Your task to perform on an android device: Go to network settings Image 0: 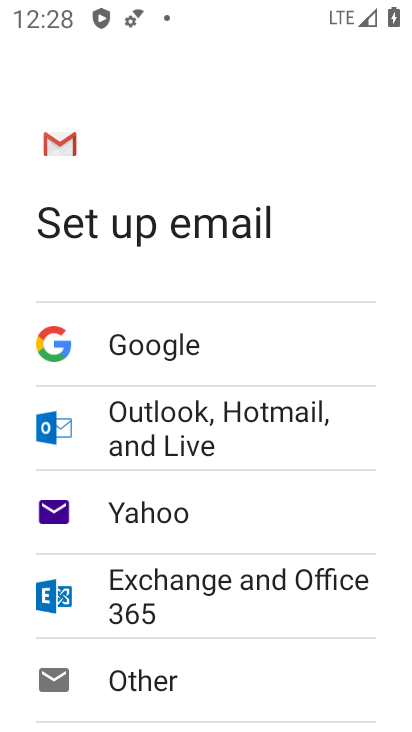
Step 0: press home button
Your task to perform on an android device: Go to network settings Image 1: 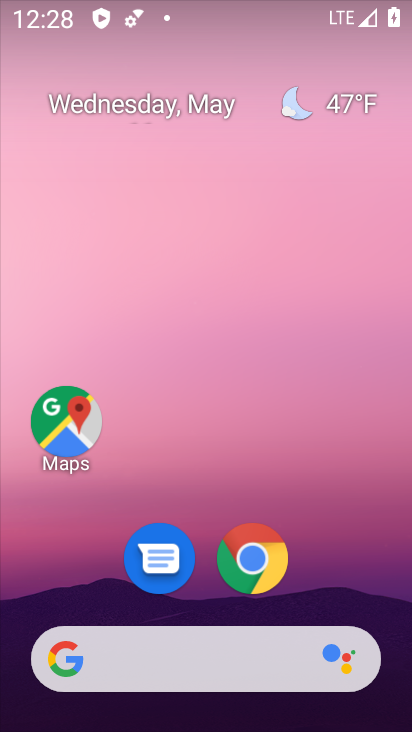
Step 1: drag from (200, 718) to (171, 195)
Your task to perform on an android device: Go to network settings Image 2: 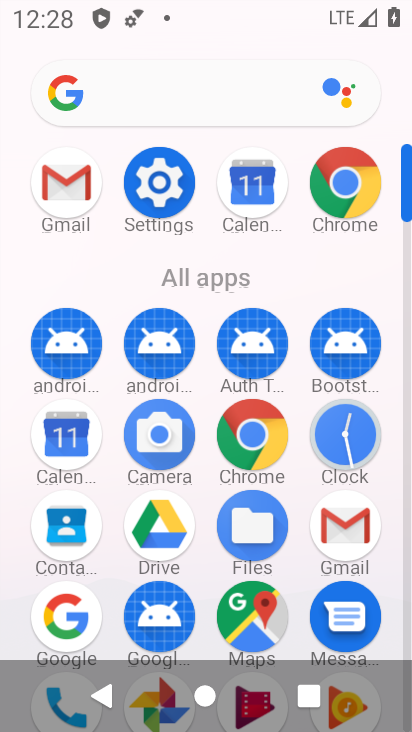
Step 2: click (158, 179)
Your task to perform on an android device: Go to network settings Image 3: 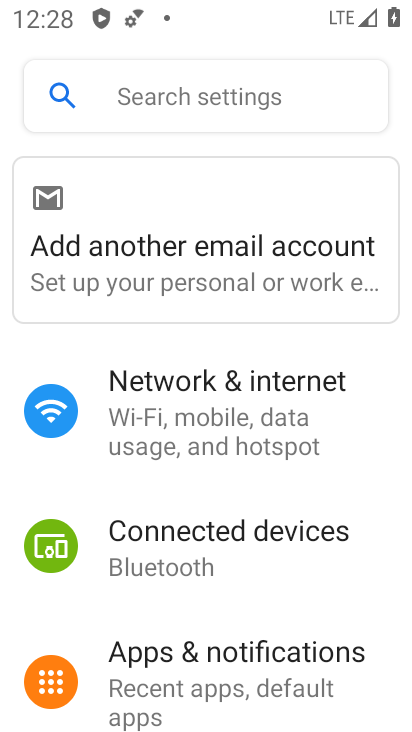
Step 3: click (226, 409)
Your task to perform on an android device: Go to network settings Image 4: 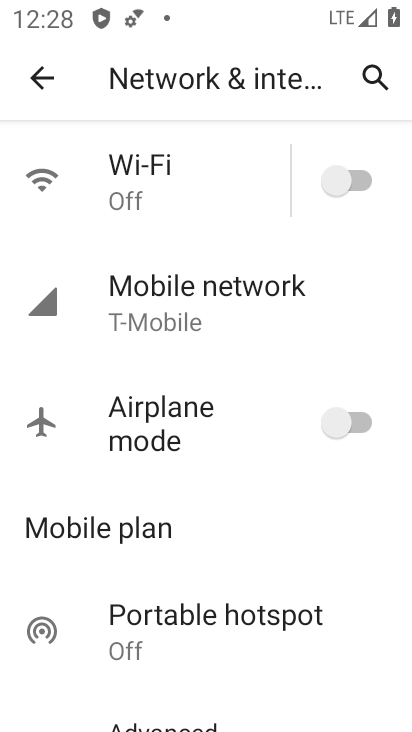
Step 4: task complete